Your task to perform on an android device: turn off location Image 0: 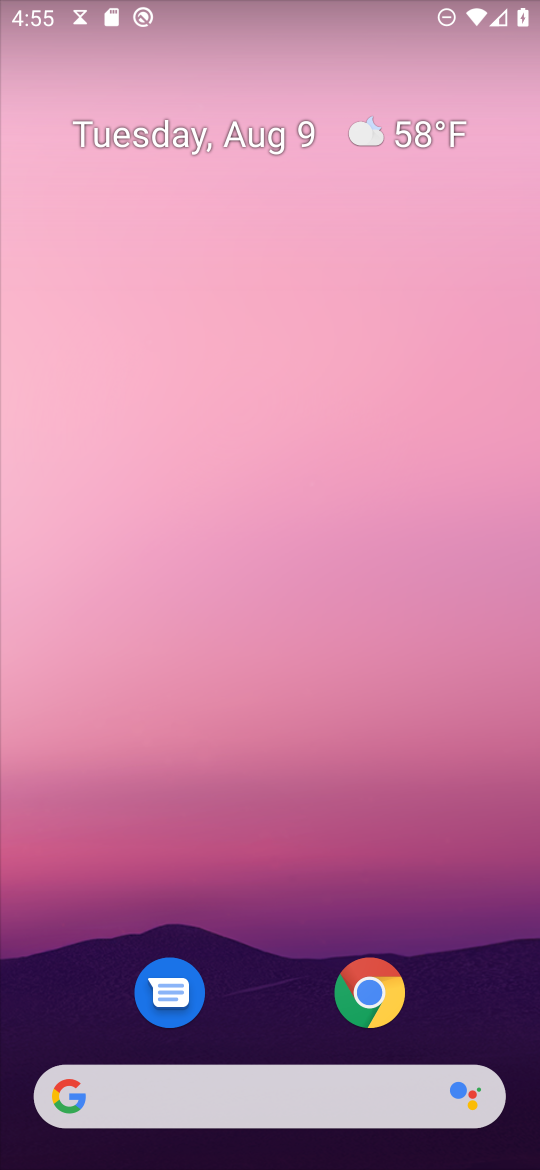
Step 0: click (448, 646)
Your task to perform on an android device: turn off location Image 1: 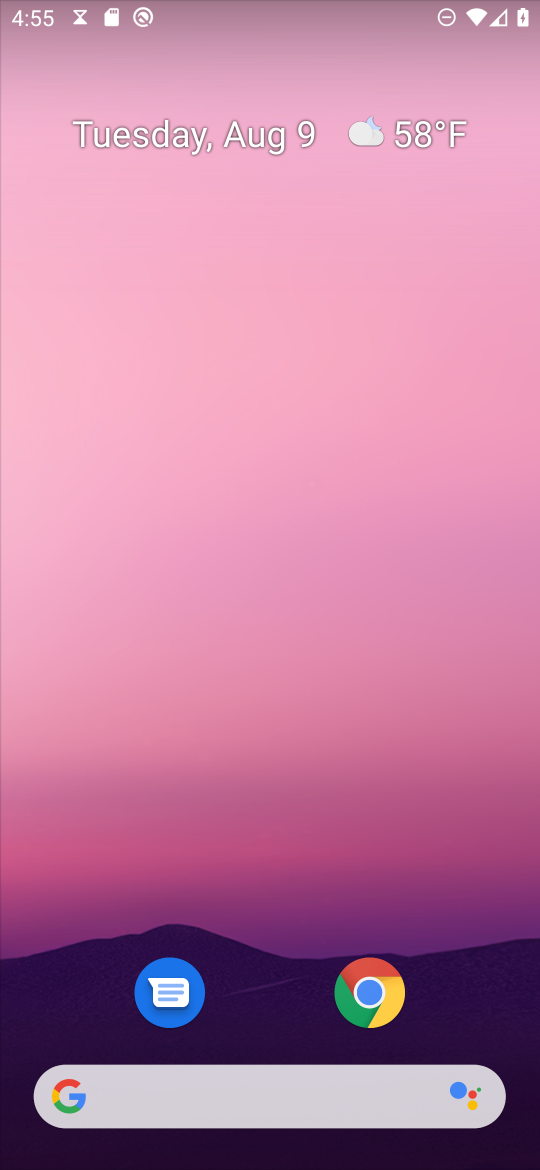
Step 1: drag from (361, 1135) to (398, 39)
Your task to perform on an android device: turn off location Image 2: 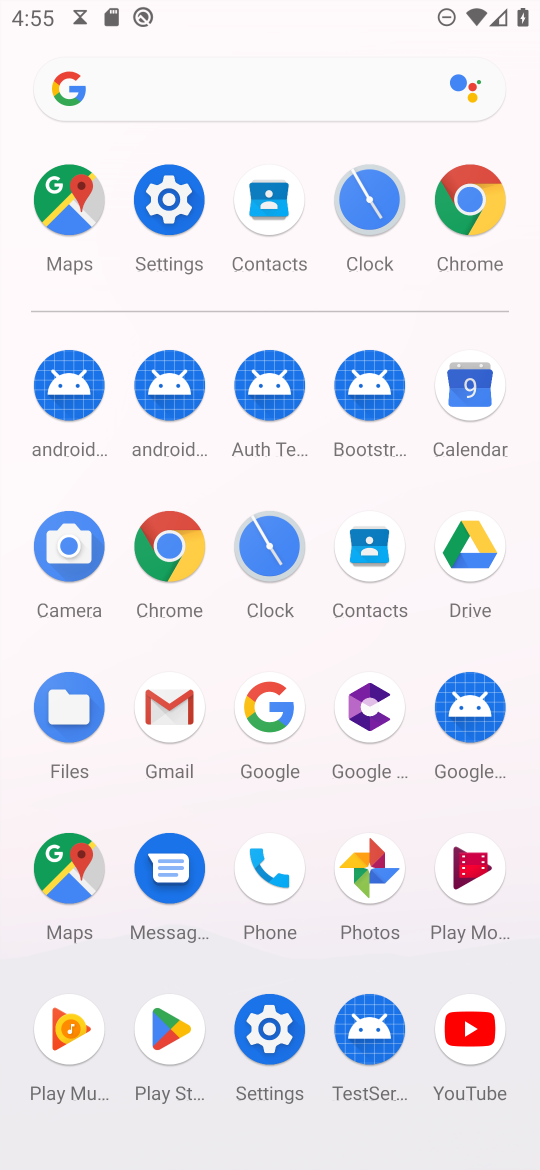
Step 2: click (170, 189)
Your task to perform on an android device: turn off location Image 3: 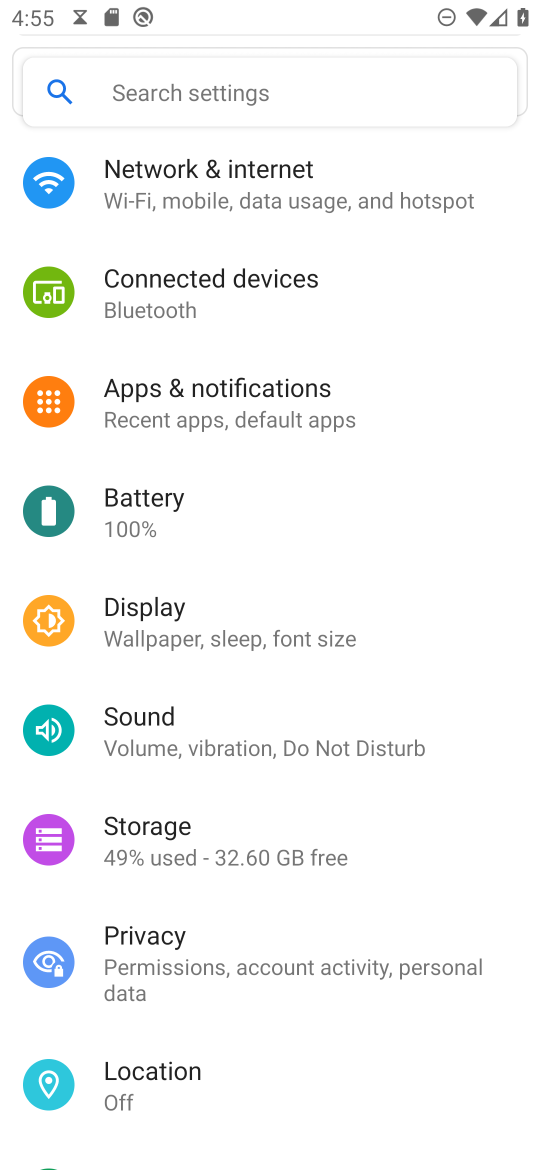
Step 3: click (182, 1074)
Your task to perform on an android device: turn off location Image 4: 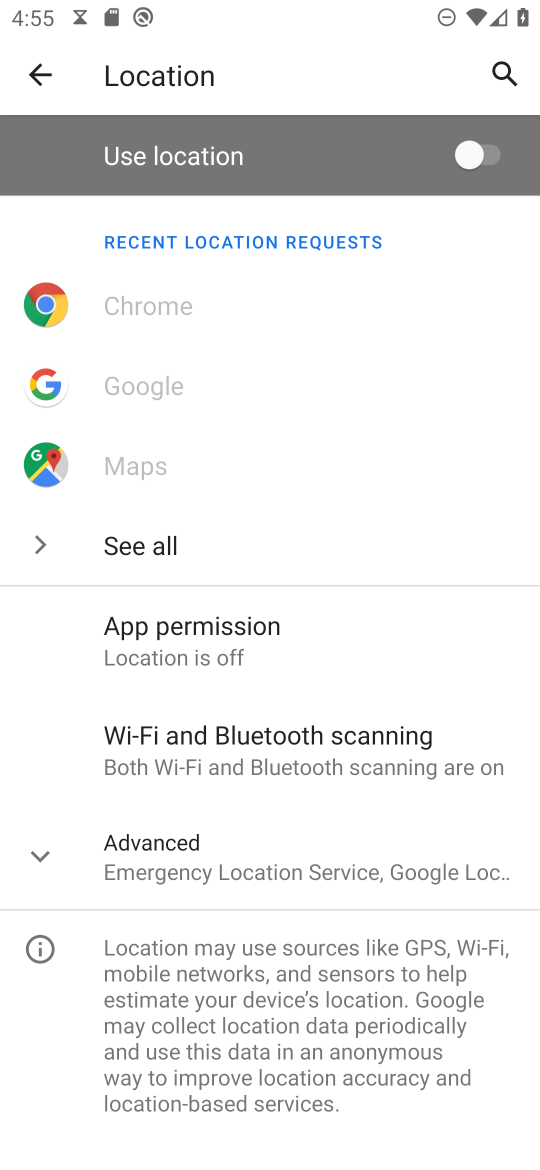
Step 4: task complete